Your task to perform on an android device: toggle sleep mode Image 0: 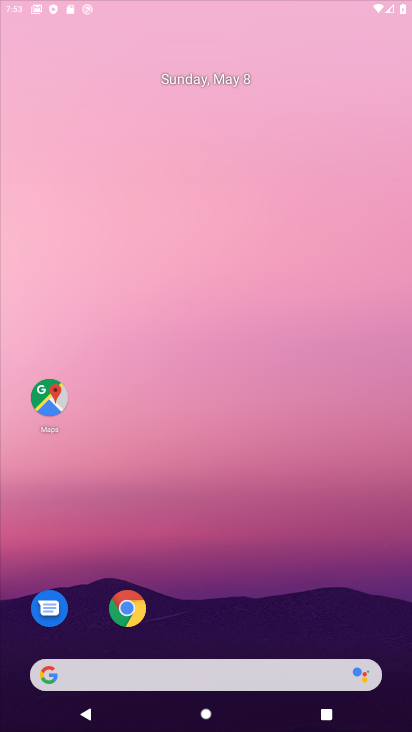
Step 0: drag from (246, 544) to (258, 245)
Your task to perform on an android device: toggle sleep mode Image 1: 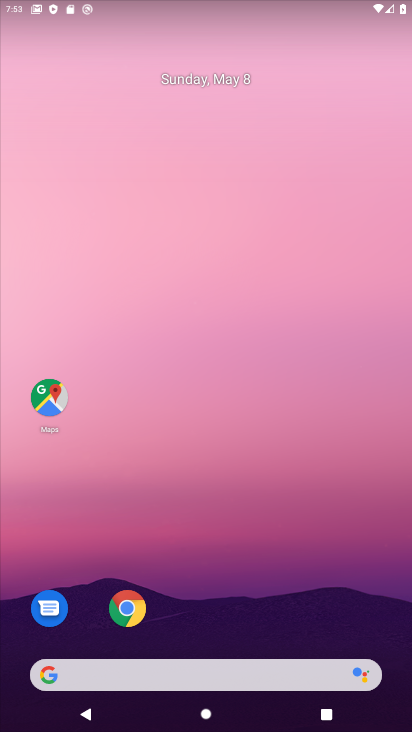
Step 1: drag from (211, 607) to (262, 121)
Your task to perform on an android device: toggle sleep mode Image 2: 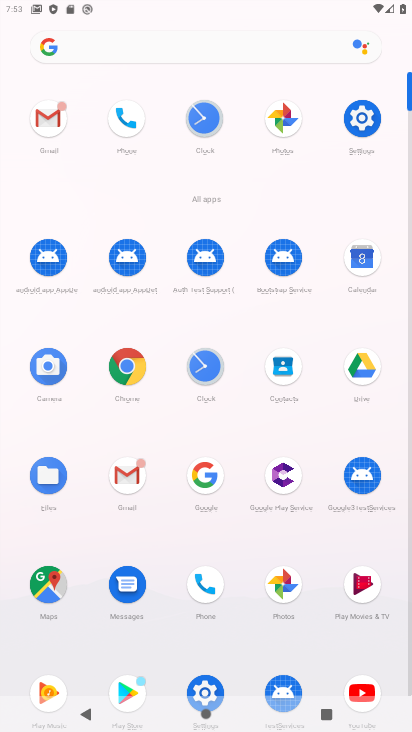
Step 2: click (131, 365)
Your task to perform on an android device: toggle sleep mode Image 3: 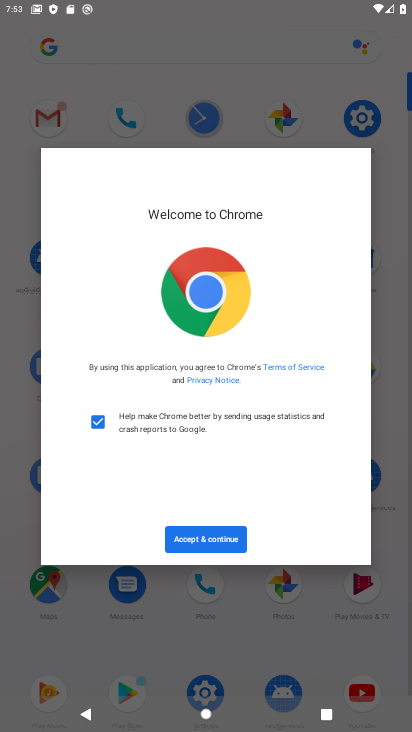
Step 3: click (198, 536)
Your task to perform on an android device: toggle sleep mode Image 4: 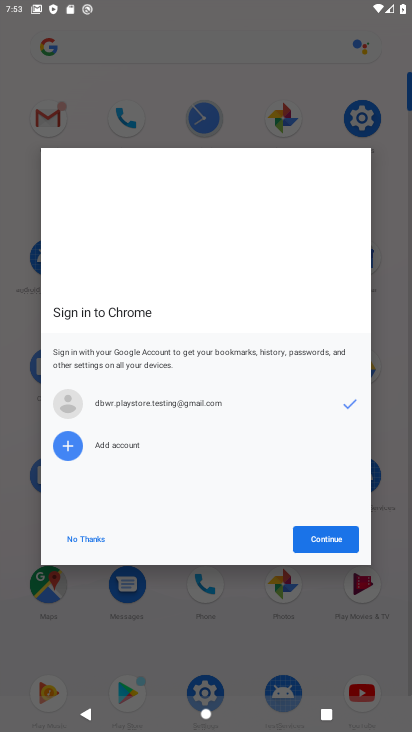
Step 4: click (317, 543)
Your task to perform on an android device: toggle sleep mode Image 5: 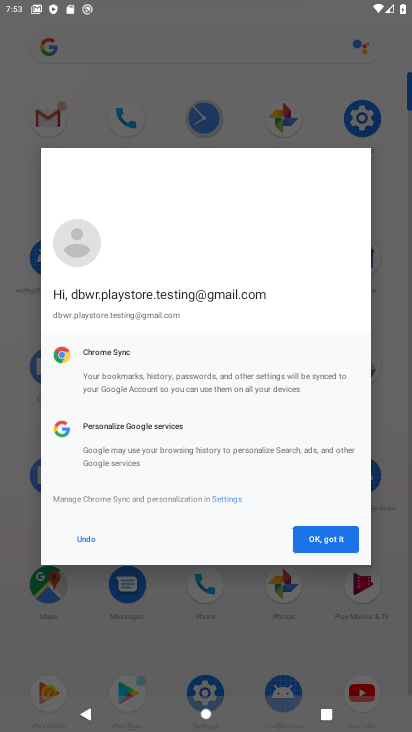
Step 5: click (316, 542)
Your task to perform on an android device: toggle sleep mode Image 6: 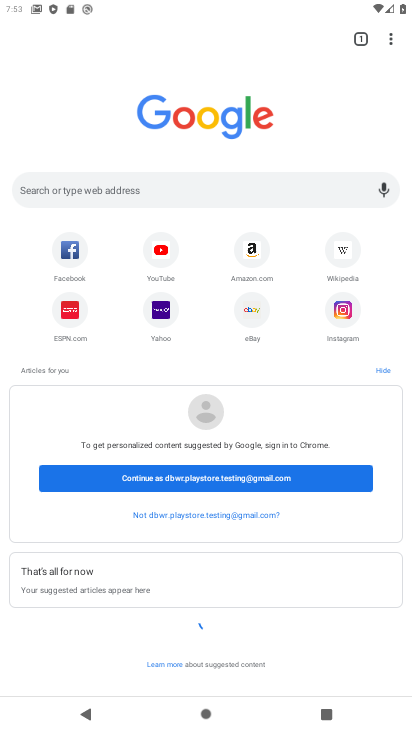
Step 6: press home button
Your task to perform on an android device: toggle sleep mode Image 7: 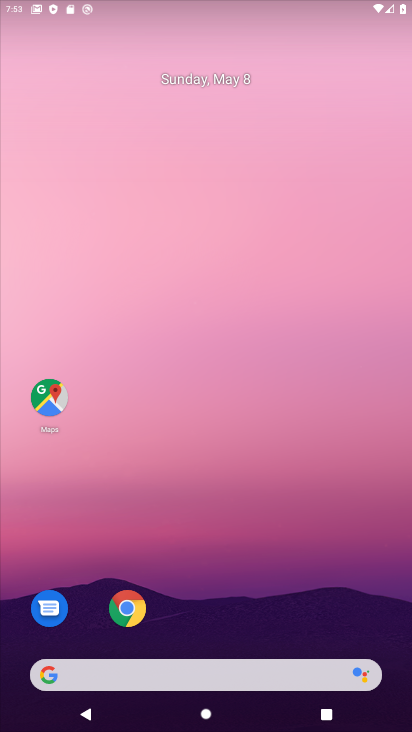
Step 7: drag from (287, 404) to (314, 193)
Your task to perform on an android device: toggle sleep mode Image 8: 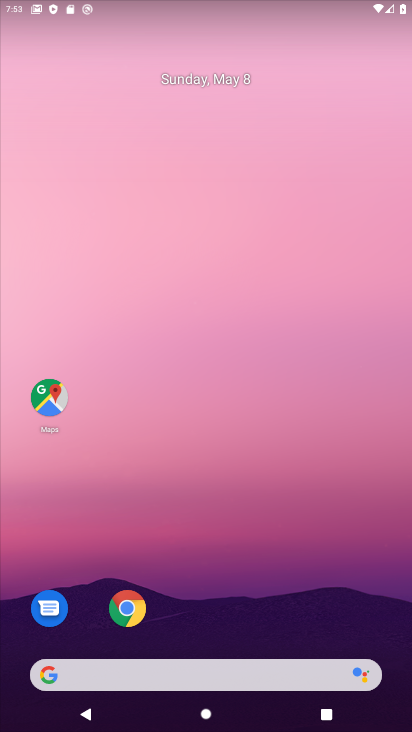
Step 8: drag from (265, 597) to (298, 146)
Your task to perform on an android device: toggle sleep mode Image 9: 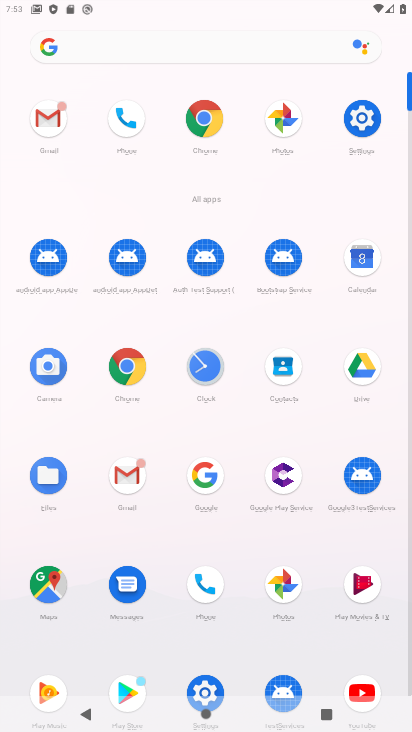
Step 9: click (355, 109)
Your task to perform on an android device: toggle sleep mode Image 10: 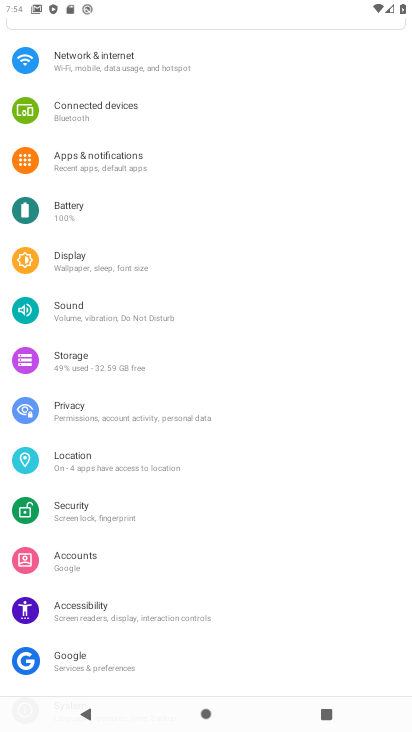
Step 10: task complete